Your task to perform on an android device: toggle pop-ups in chrome Image 0: 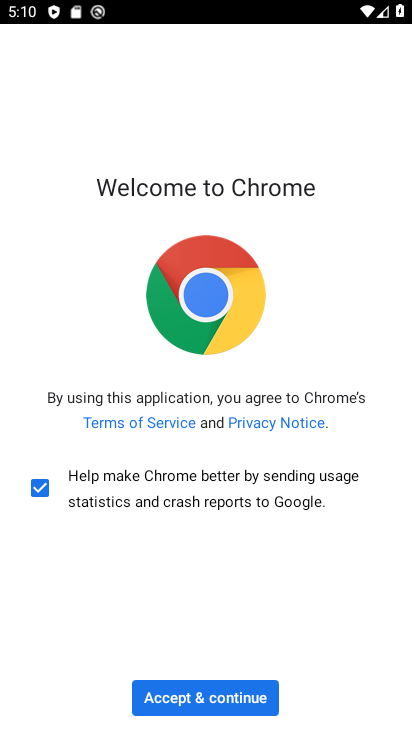
Step 0: click (229, 695)
Your task to perform on an android device: toggle pop-ups in chrome Image 1: 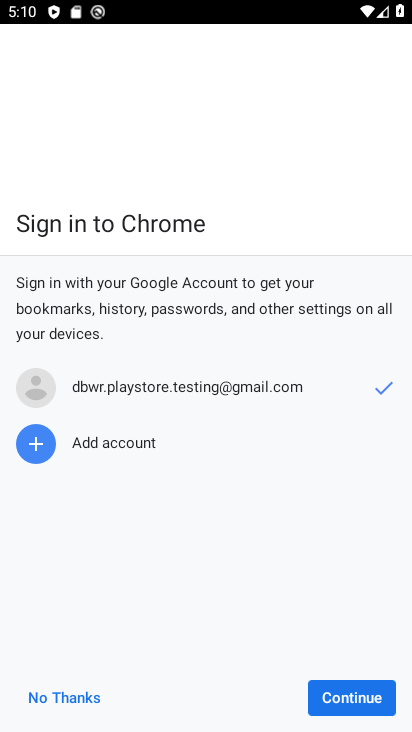
Step 1: click (353, 695)
Your task to perform on an android device: toggle pop-ups in chrome Image 2: 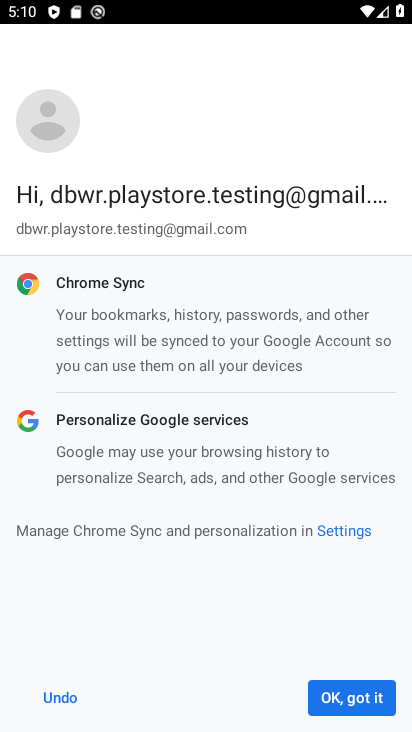
Step 2: click (370, 677)
Your task to perform on an android device: toggle pop-ups in chrome Image 3: 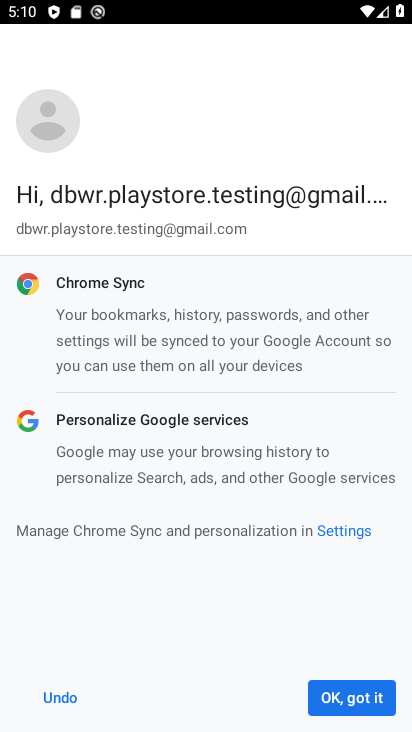
Step 3: click (345, 693)
Your task to perform on an android device: toggle pop-ups in chrome Image 4: 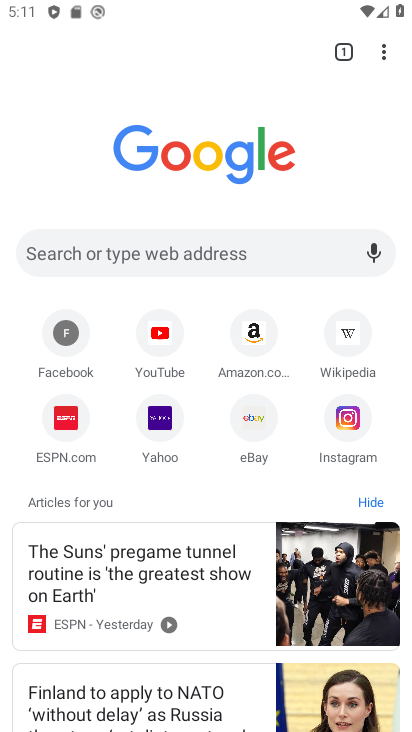
Step 4: drag from (381, 46) to (221, 439)
Your task to perform on an android device: toggle pop-ups in chrome Image 5: 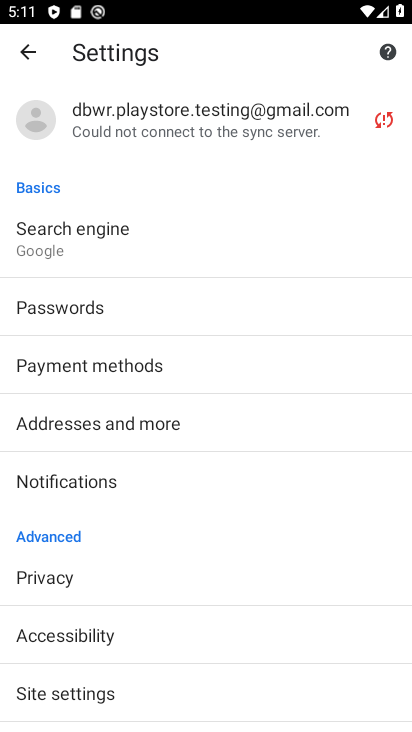
Step 5: drag from (214, 564) to (188, 171)
Your task to perform on an android device: toggle pop-ups in chrome Image 6: 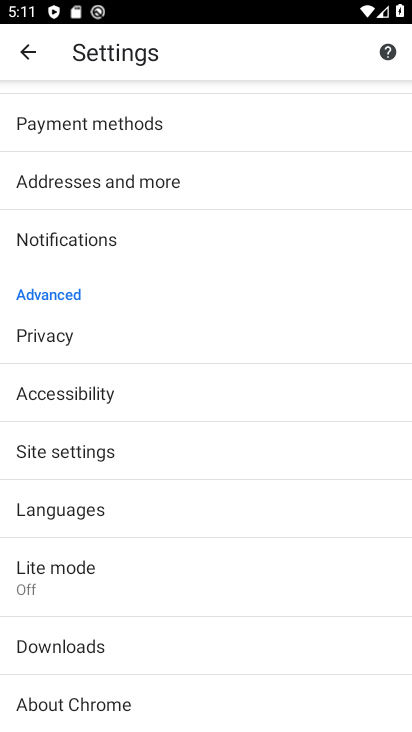
Step 6: drag from (236, 567) to (221, 220)
Your task to perform on an android device: toggle pop-ups in chrome Image 7: 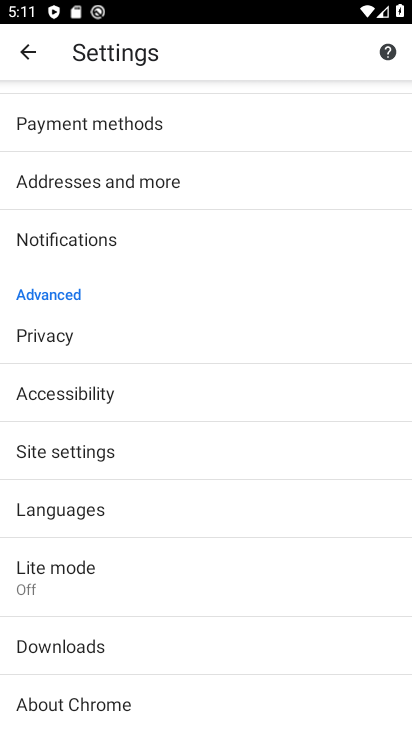
Step 7: click (101, 447)
Your task to perform on an android device: toggle pop-ups in chrome Image 8: 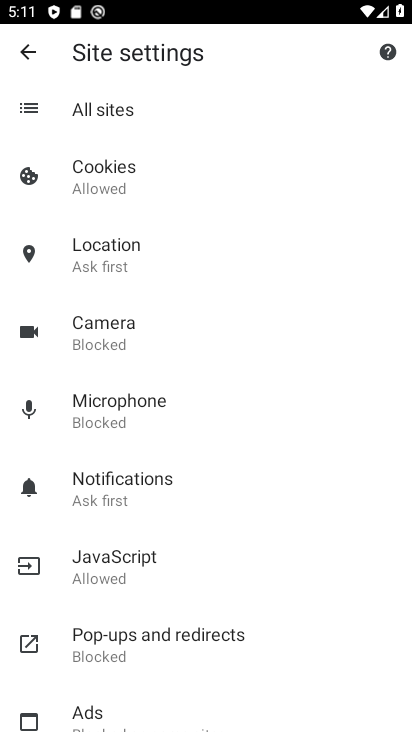
Step 8: drag from (272, 571) to (267, 122)
Your task to perform on an android device: toggle pop-ups in chrome Image 9: 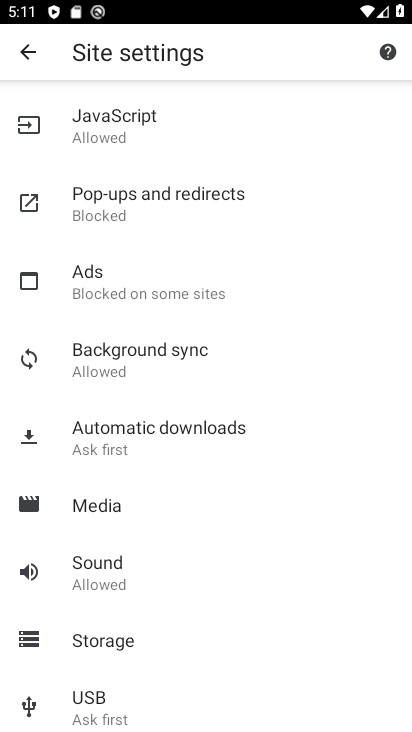
Step 9: click (126, 198)
Your task to perform on an android device: toggle pop-ups in chrome Image 10: 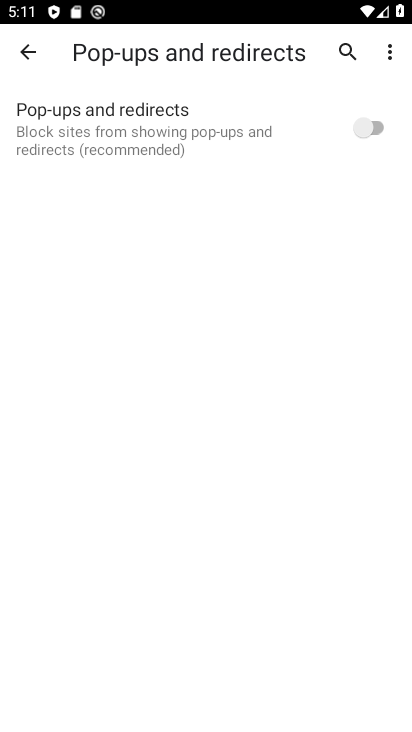
Step 10: click (377, 125)
Your task to perform on an android device: toggle pop-ups in chrome Image 11: 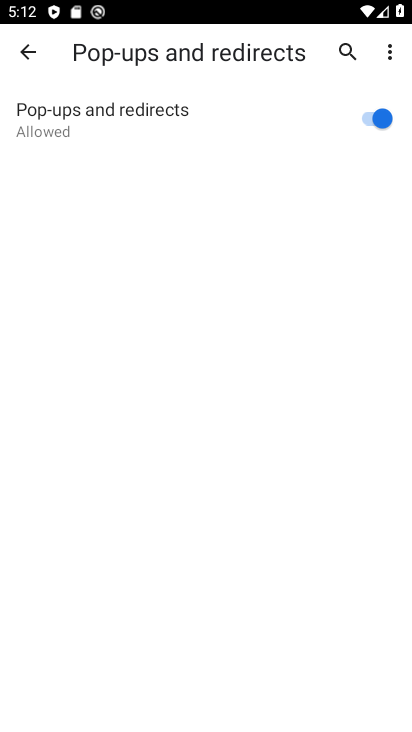
Step 11: click (20, 49)
Your task to perform on an android device: toggle pop-ups in chrome Image 12: 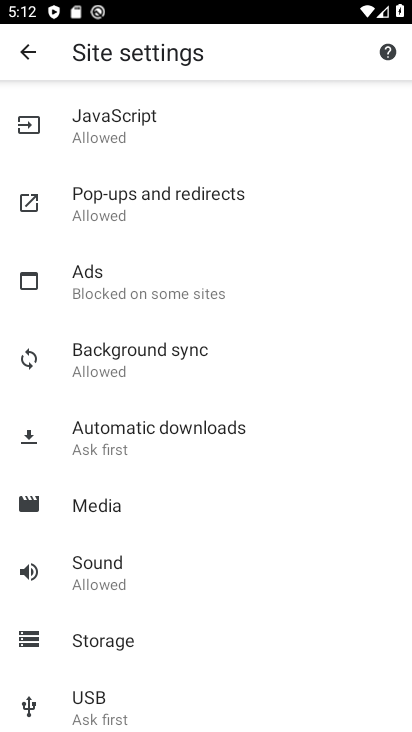
Step 12: task complete